Your task to perform on an android device: see creations saved in the google photos Image 0: 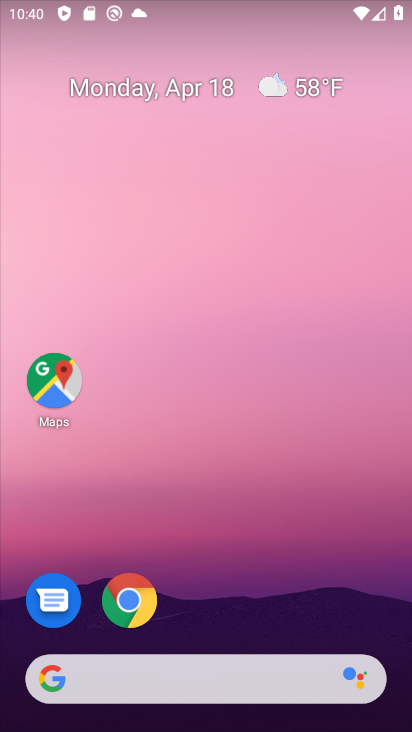
Step 0: drag from (218, 546) to (409, 93)
Your task to perform on an android device: see creations saved in the google photos Image 1: 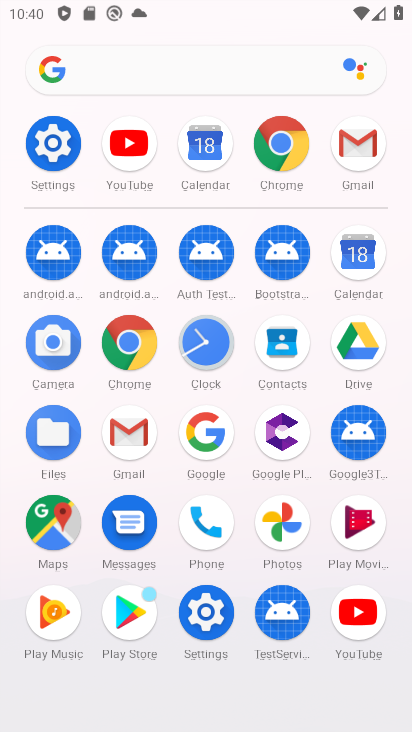
Step 1: click (280, 514)
Your task to perform on an android device: see creations saved in the google photos Image 2: 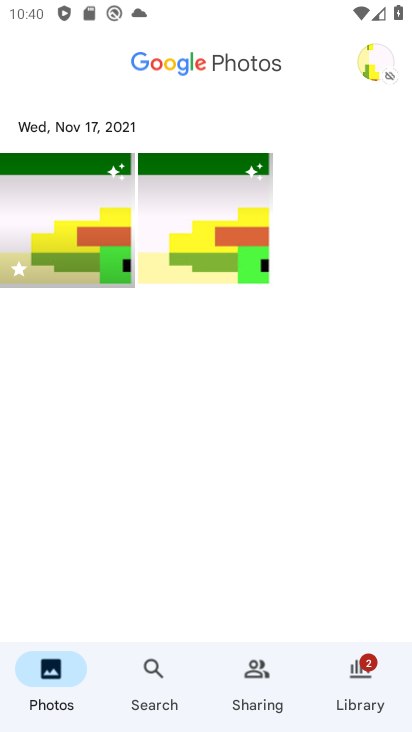
Step 2: click (370, 60)
Your task to perform on an android device: see creations saved in the google photos Image 3: 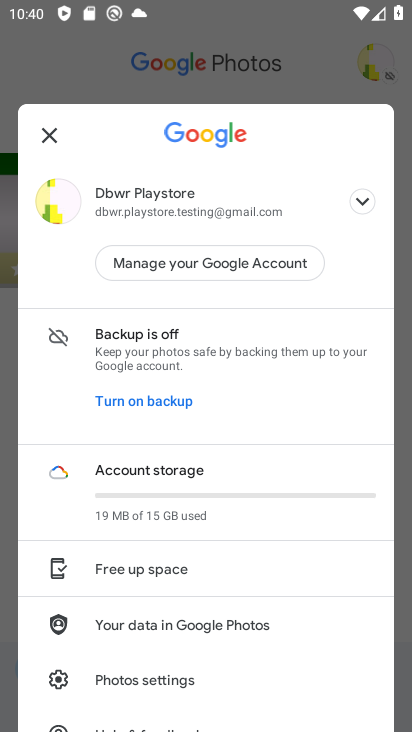
Step 3: click (47, 133)
Your task to perform on an android device: see creations saved in the google photos Image 4: 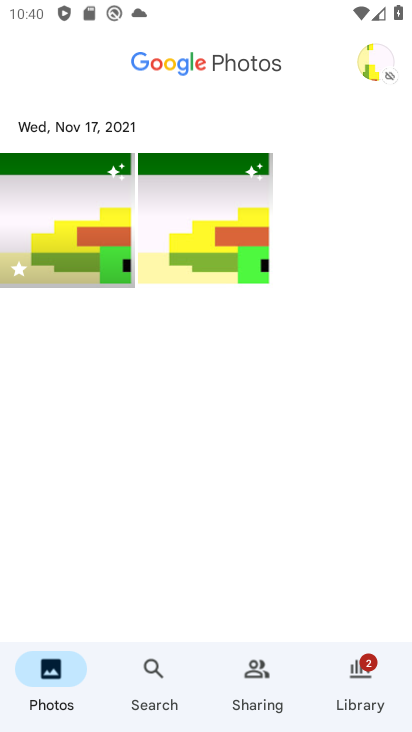
Step 4: click (149, 665)
Your task to perform on an android device: see creations saved in the google photos Image 5: 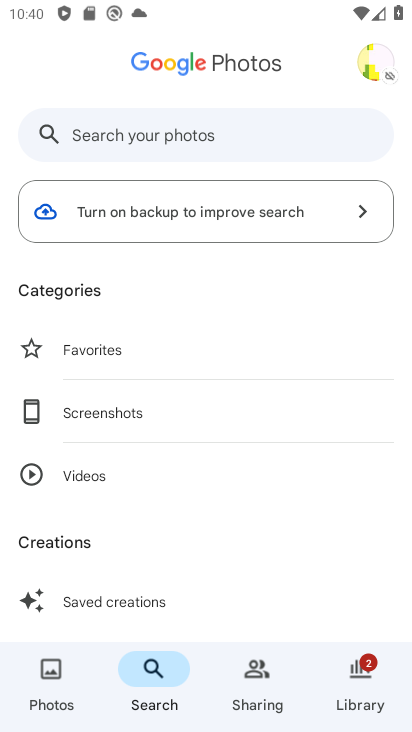
Step 5: click (121, 130)
Your task to perform on an android device: see creations saved in the google photos Image 6: 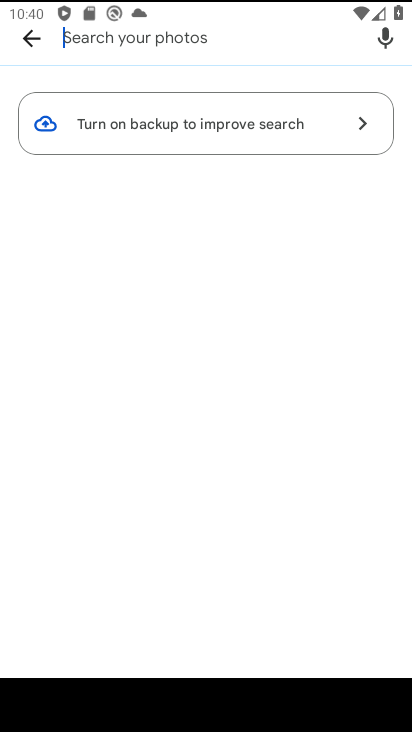
Step 6: click (22, 39)
Your task to perform on an android device: see creations saved in the google photos Image 7: 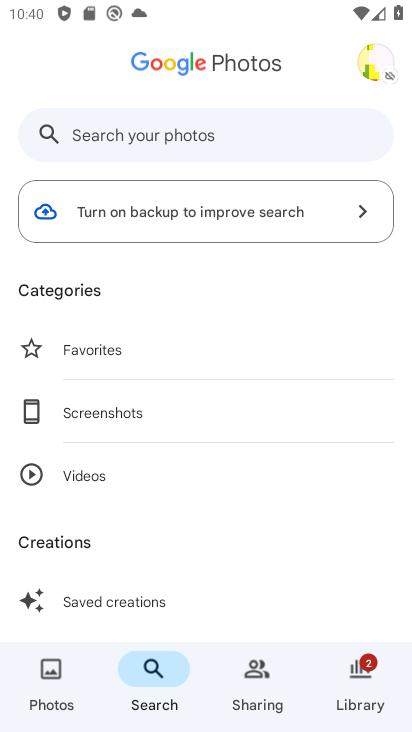
Step 7: click (64, 539)
Your task to perform on an android device: see creations saved in the google photos Image 8: 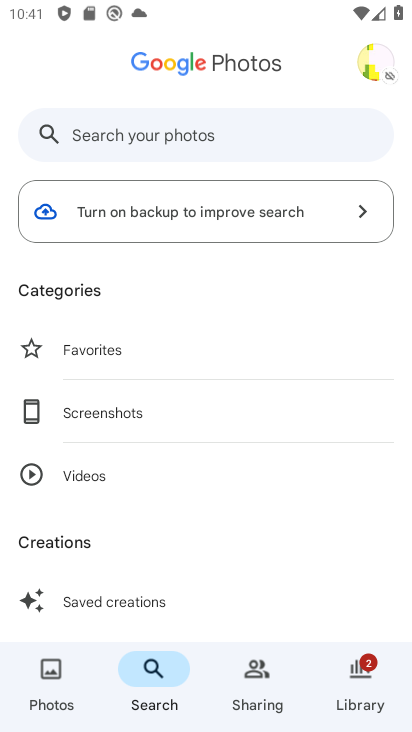
Step 8: click (101, 596)
Your task to perform on an android device: see creations saved in the google photos Image 9: 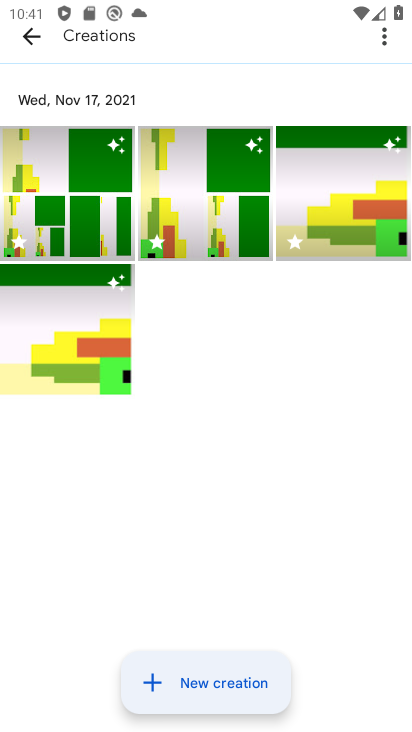
Step 9: task complete